Your task to perform on an android device: Search for pizza restaurants on Maps Image 0: 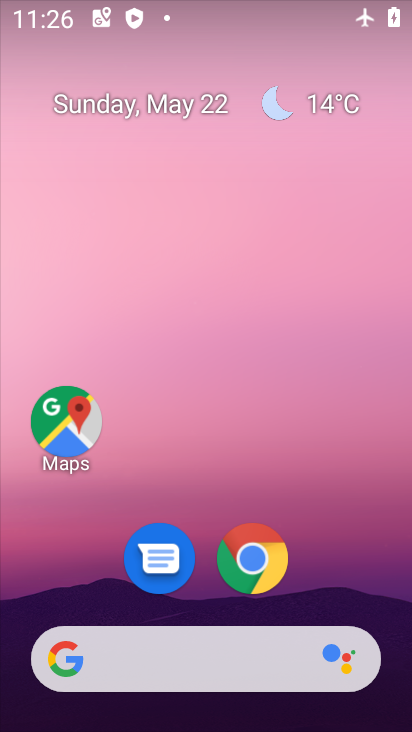
Step 0: click (64, 429)
Your task to perform on an android device: Search for pizza restaurants on Maps Image 1: 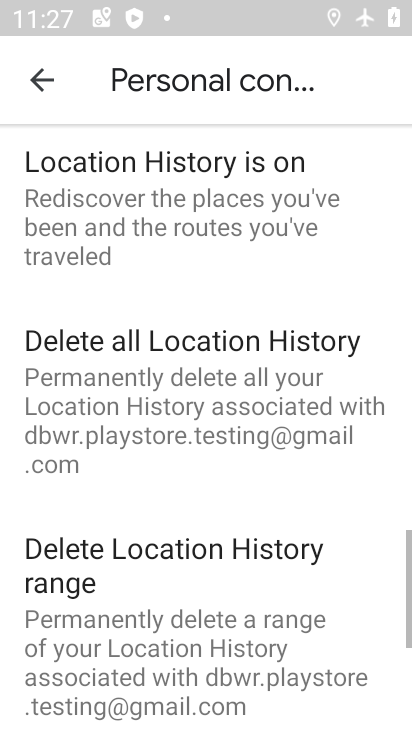
Step 1: click (42, 90)
Your task to perform on an android device: Search for pizza restaurants on Maps Image 2: 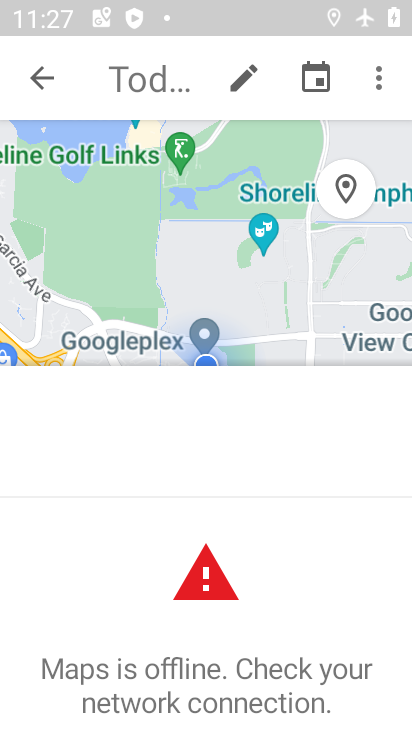
Step 2: click (36, 81)
Your task to perform on an android device: Search for pizza restaurants on Maps Image 3: 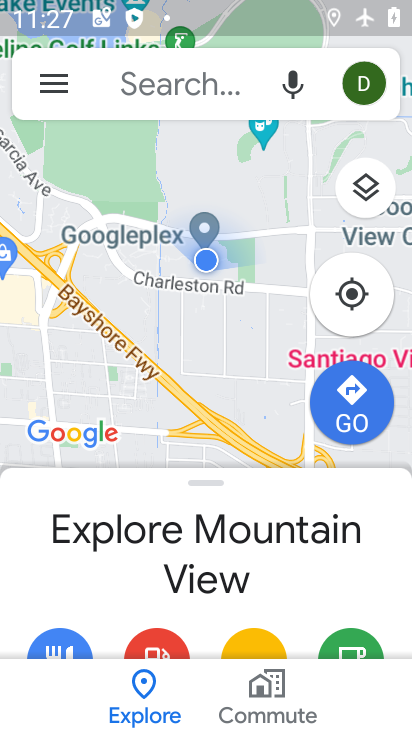
Step 3: click (125, 91)
Your task to perform on an android device: Search for pizza restaurants on Maps Image 4: 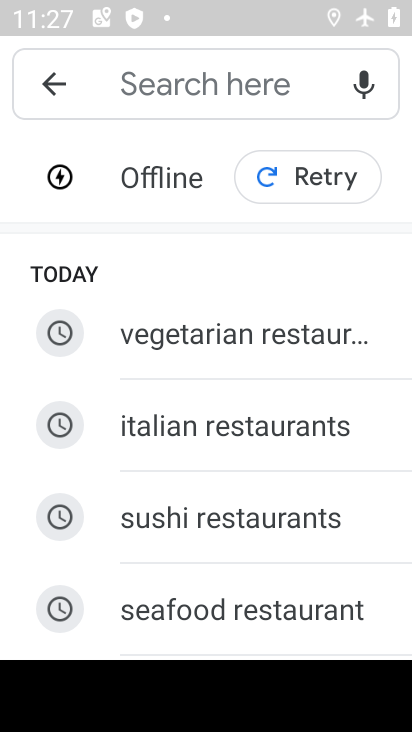
Step 4: type "pizza restaurant "
Your task to perform on an android device: Search for pizza restaurants on Maps Image 5: 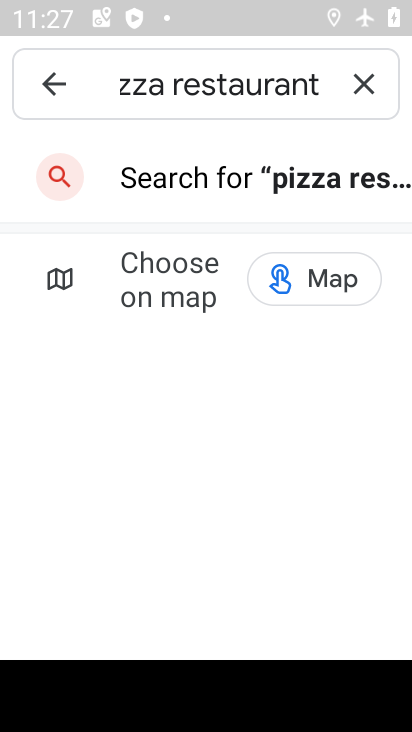
Step 5: click (310, 179)
Your task to perform on an android device: Search for pizza restaurants on Maps Image 6: 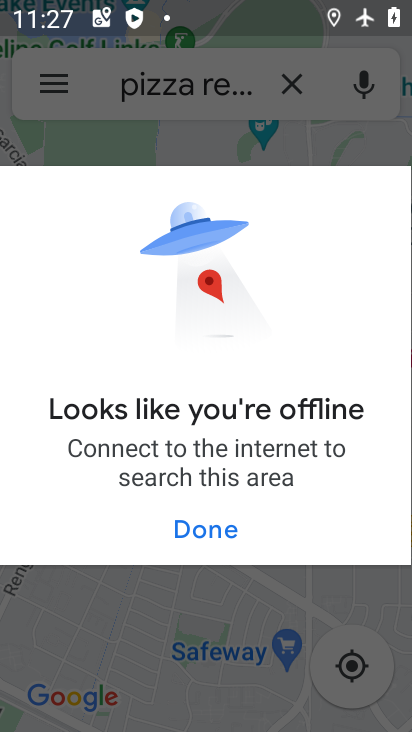
Step 6: task complete